Your task to perform on an android device: turn pop-ups off in chrome Image 0: 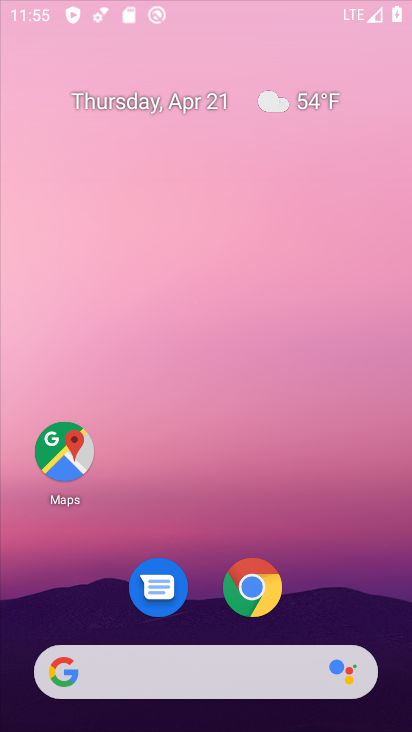
Step 0: drag from (221, 531) to (328, 50)
Your task to perform on an android device: turn pop-ups off in chrome Image 1: 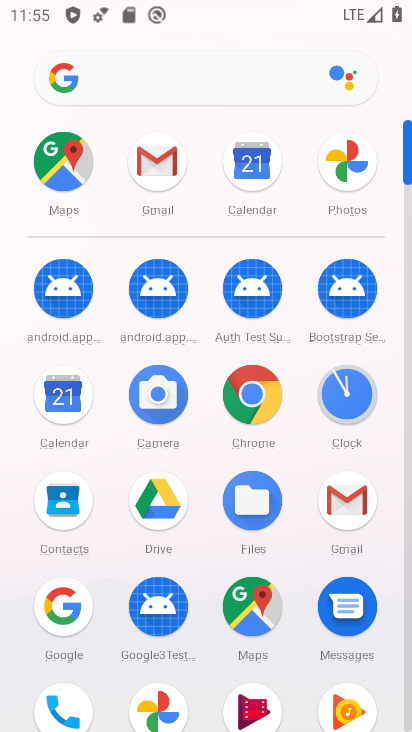
Step 1: click (347, 397)
Your task to perform on an android device: turn pop-ups off in chrome Image 2: 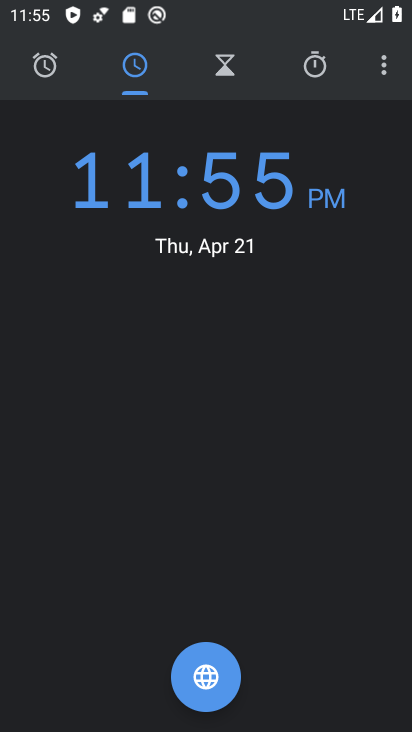
Step 2: press back button
Your task to perform on an android device: turn pop-ups off in chrome Image 3: 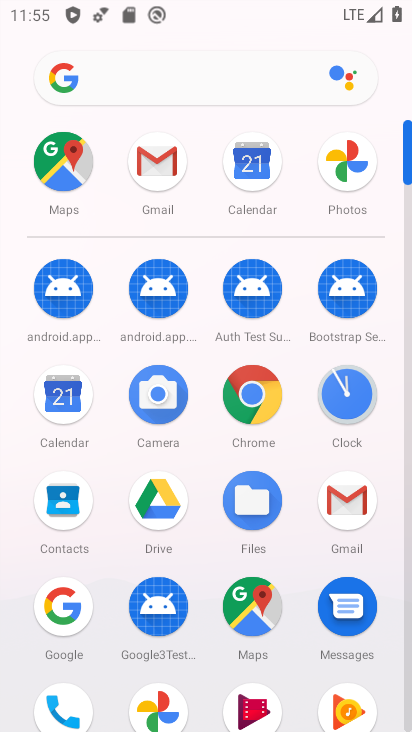
Step 3: click (254, 407)
Your task to perform on an android device: turn pop-ups off in chrome Image 4: 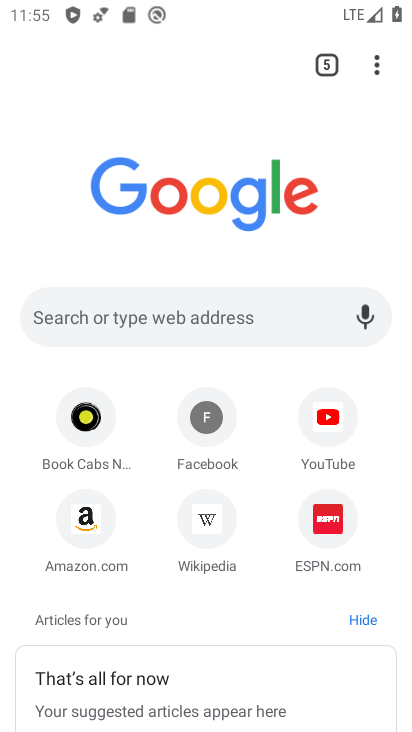
Step 4: drag from (375, 61) to (181, 618)
Your task to perform on an android device: turn pop-ups off in chrome Image 5: 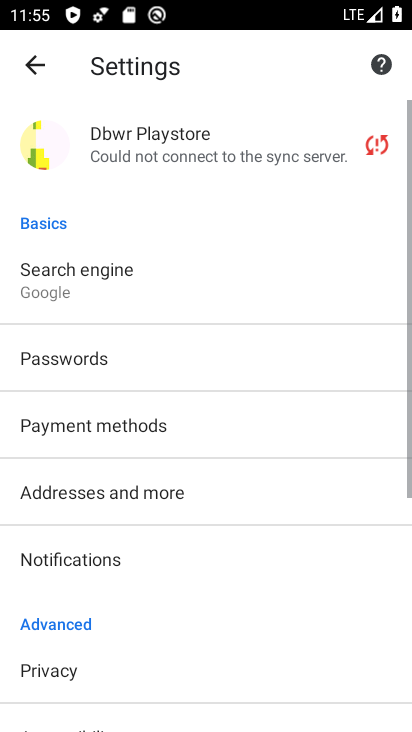
Step 5: drag from (173, 600) to (290, 138)
Your task to perform on an android device: turn pop-ups off in chrome Image 6: 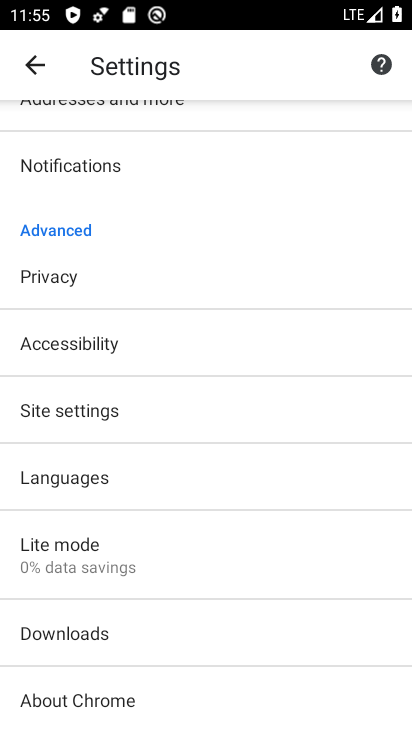
Step 6: click (96, 412)
Your task to perform on an android device: turn pop-ups off in chrome Image 7: 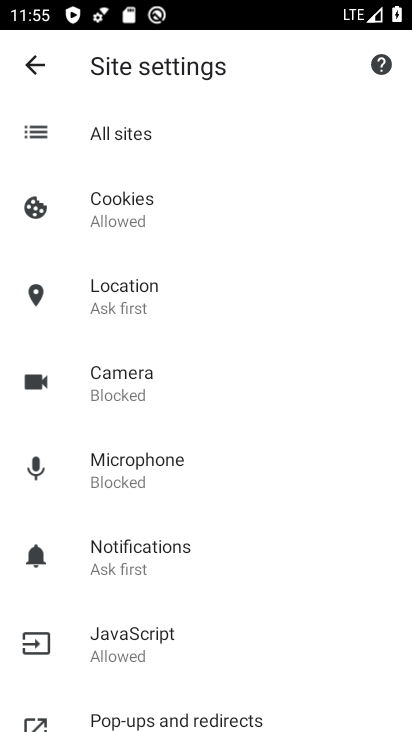
Step 7: drag from (204, 671) to (331, 230)
Your task to perform on an android device: turn pop-ups off in chrome Image 8: 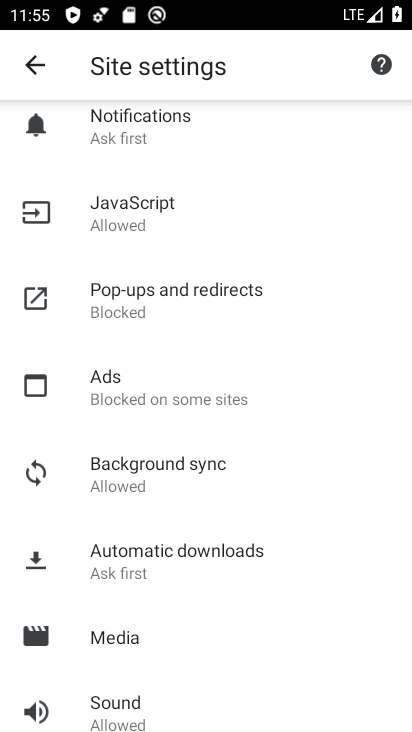
Step 8: click (213, 295)
Your task to perform on an android device: turn pop-ups off in chrome Image 9: 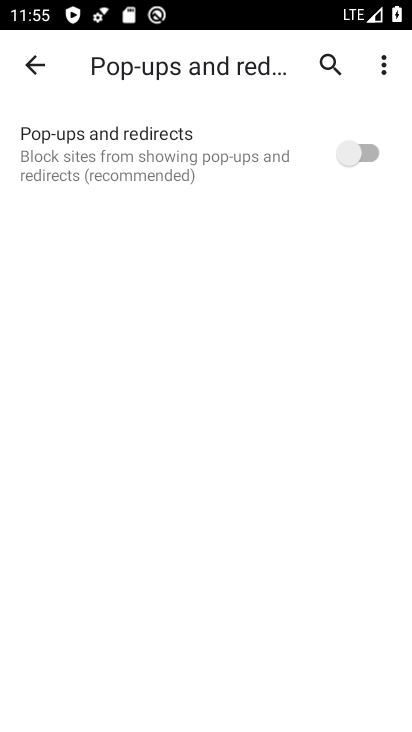
Step 9: task complete